Your task to perform on an android device: Open notification settings Image 0: 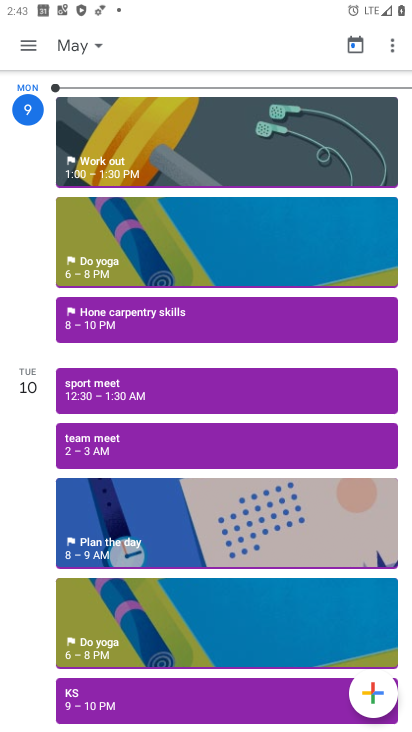
Step 0: press home button
Your task to perform on an android device: Open notification settings Image 1: 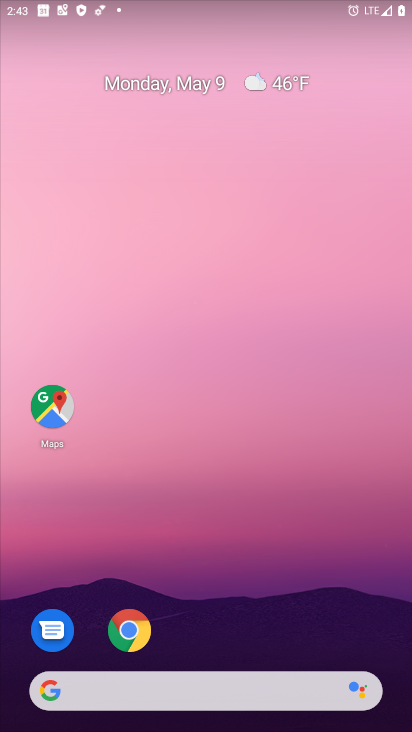
Step 1: drag from (233, 615) to (250, 67)
Your task to perform on an android device: Open notification settings Image 2: 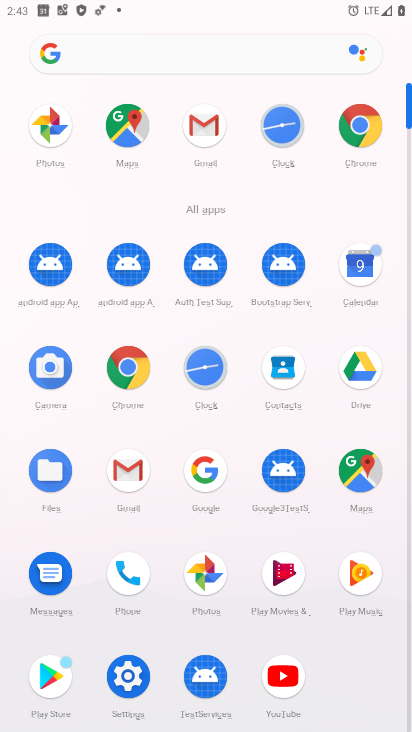
Step 2: click (140, 673)
Your task to perform on an android device: Open notification settings Image 3: 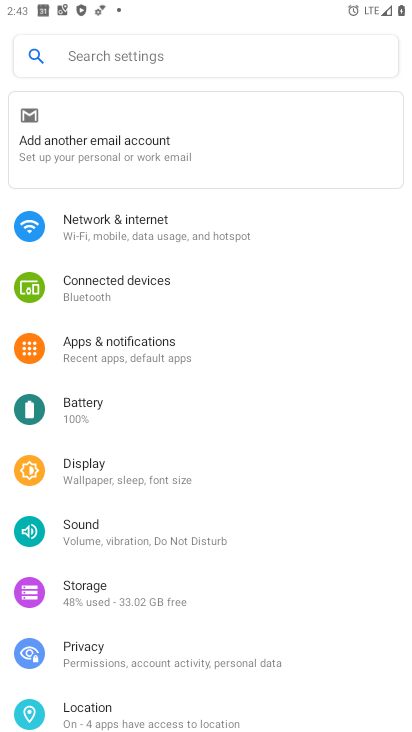
Step 3: click (122, 359)
Your task to perform on an android device: Open notification settings Image 4: 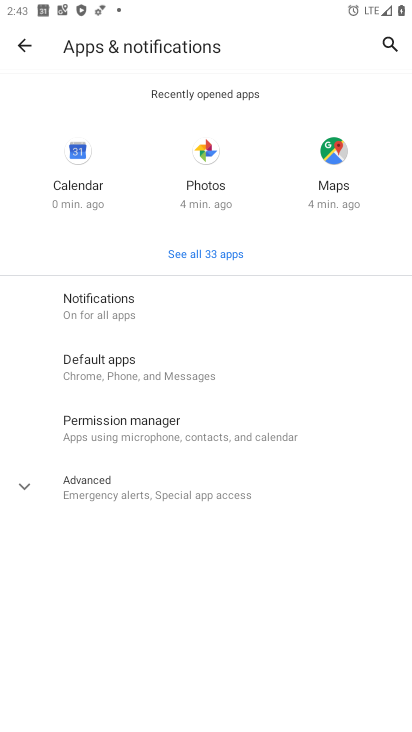
Step 4: task complete